Your task to perform on an android device: Open Google Maps Image 0: 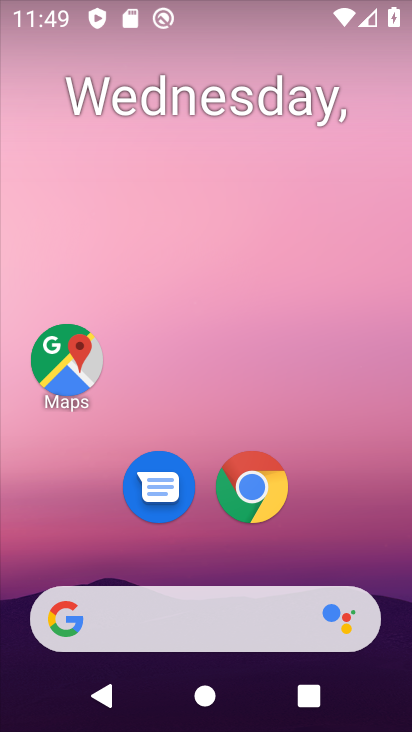
Step 0: click (89, 362)
Your task to perform on an android device: Open Google Maps Image 1: 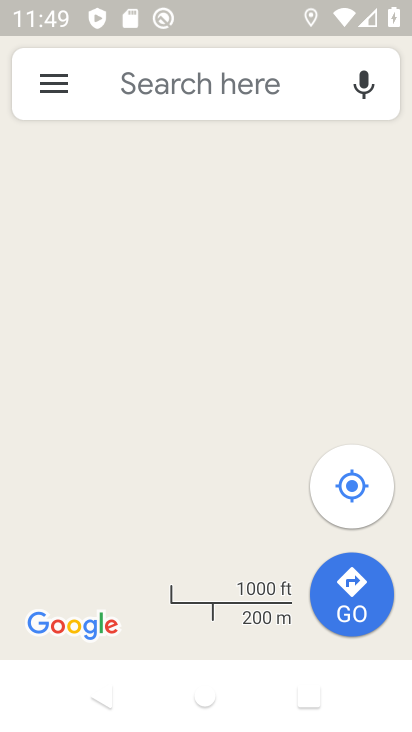
Step 1: task complete